Your task to perform on an android device: Check the price on the Dyson V11 Motorhead on Best Buy Image 0: 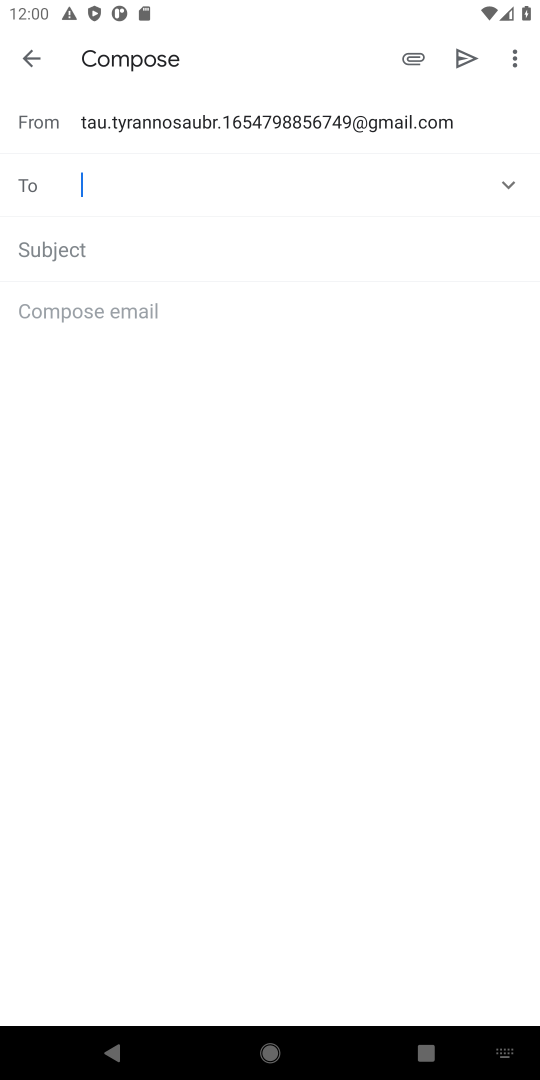
Step 0: press home button
Your task to perform on an android device: Check the price on the Dyson V11 Motorhead on Best Buy Image 1: 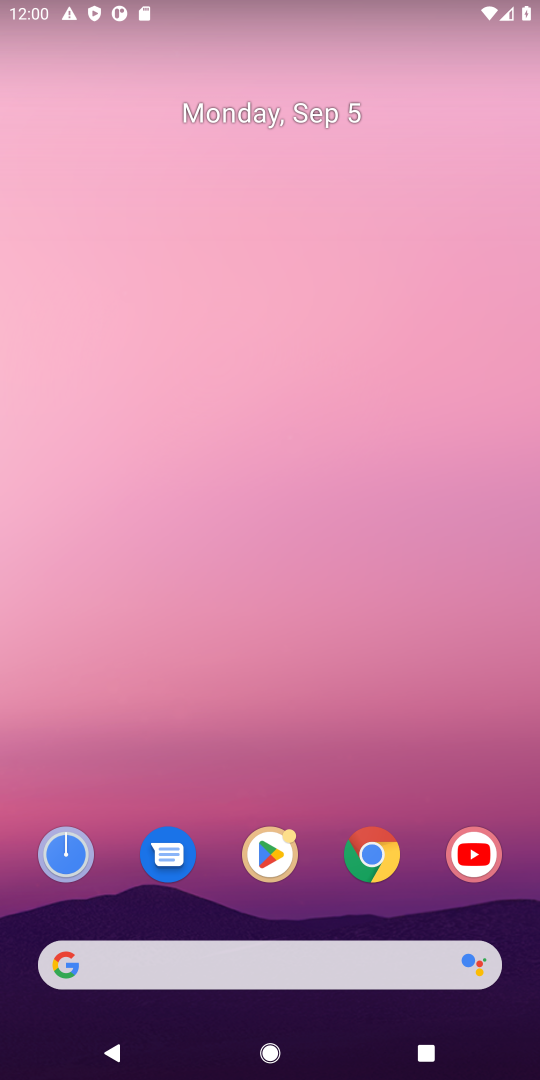
Step 1: click (234, 961)
Your task to perform on an android device: Check the price on the Dyson V11 Motorhead on Best Buy Image 2: 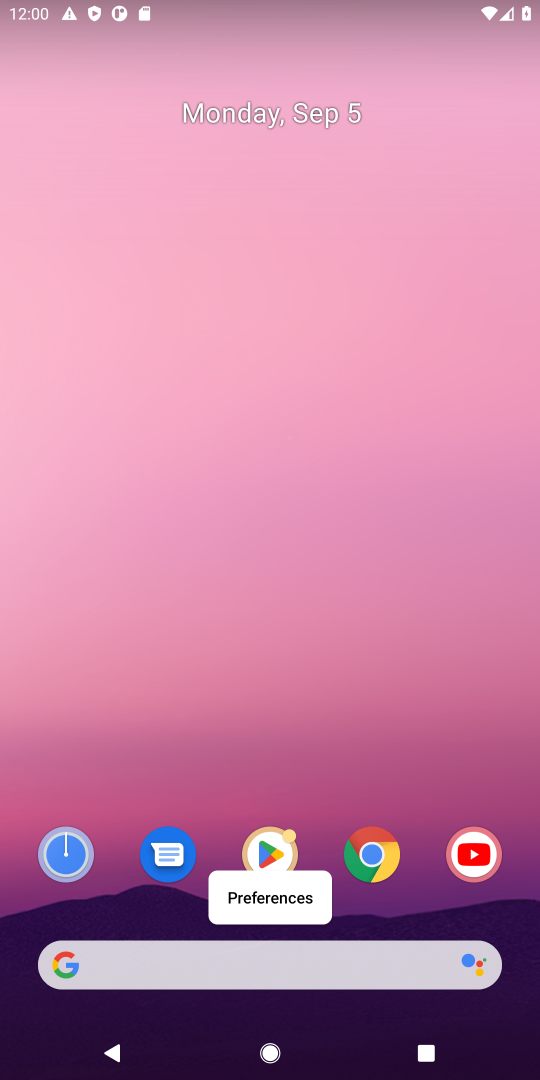
Step 2: click (151, 963)
Your task to perform on an android device: Check the price on the Dyson V11 Motorhead on Best Buy Image 3: 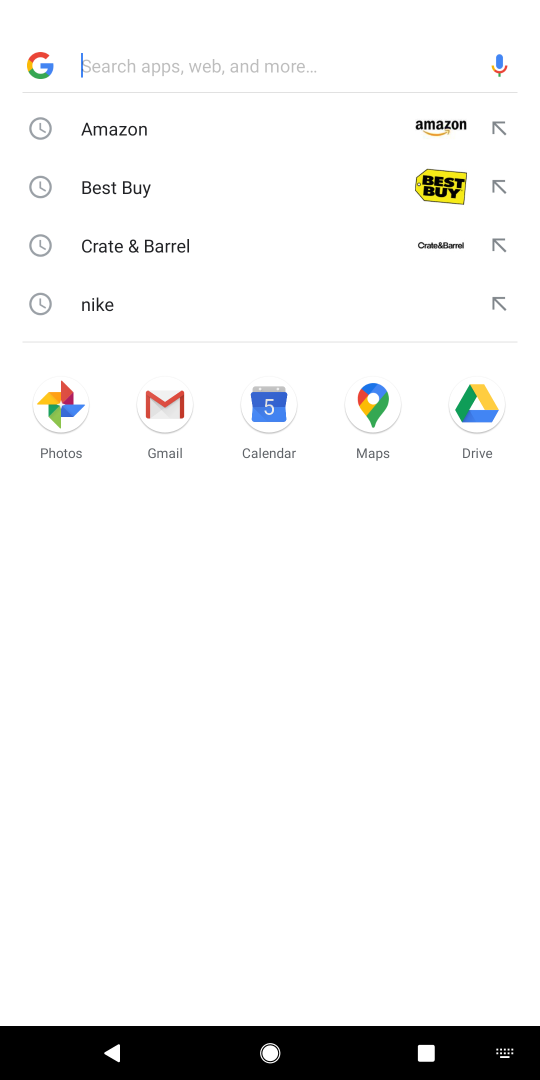
Step 3: press enter
Your task to perform on an android device: Check the price on the Dyson V11 Motorhead on Best Buy Image 4: 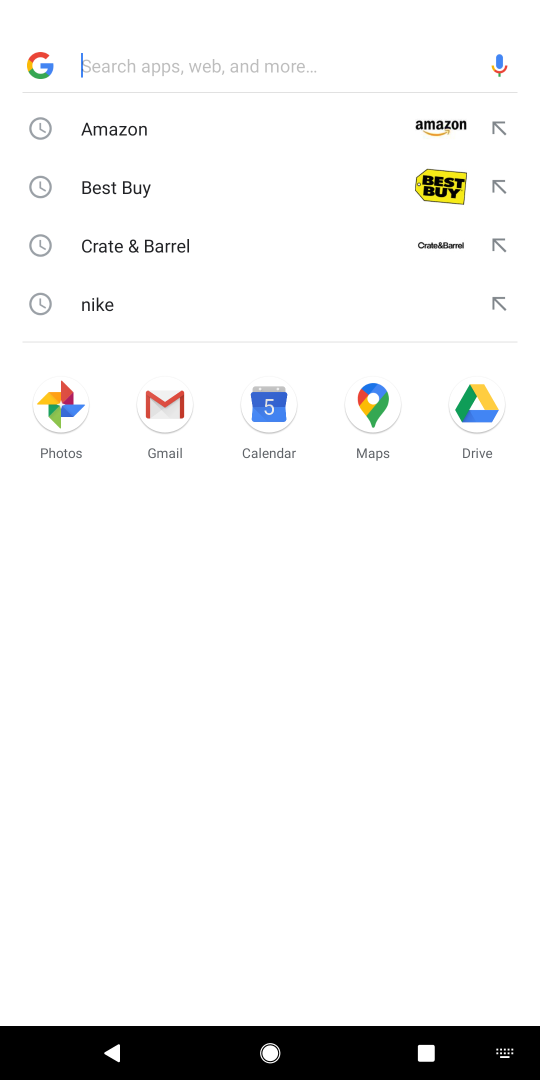
Step 4: type "best buy"
Your task to perform on an android device: Check the price on the Dyson V11 Motorhead on Best Buy Image 5: 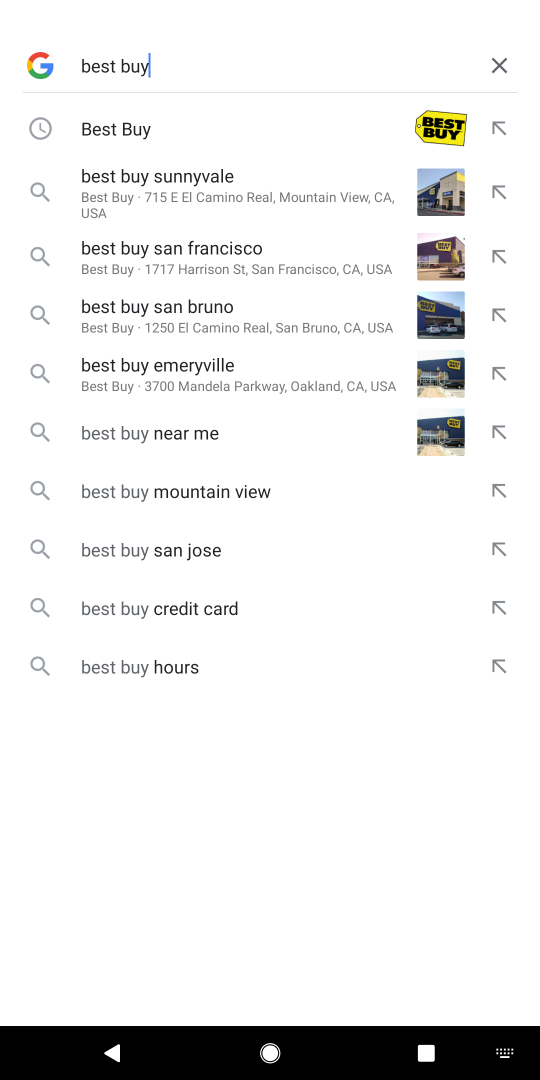
Step 5: click (135, 135)
Your task to perform on an android device: Check the price on the Dyson V11 Motorhead on Best Buy Image 6: 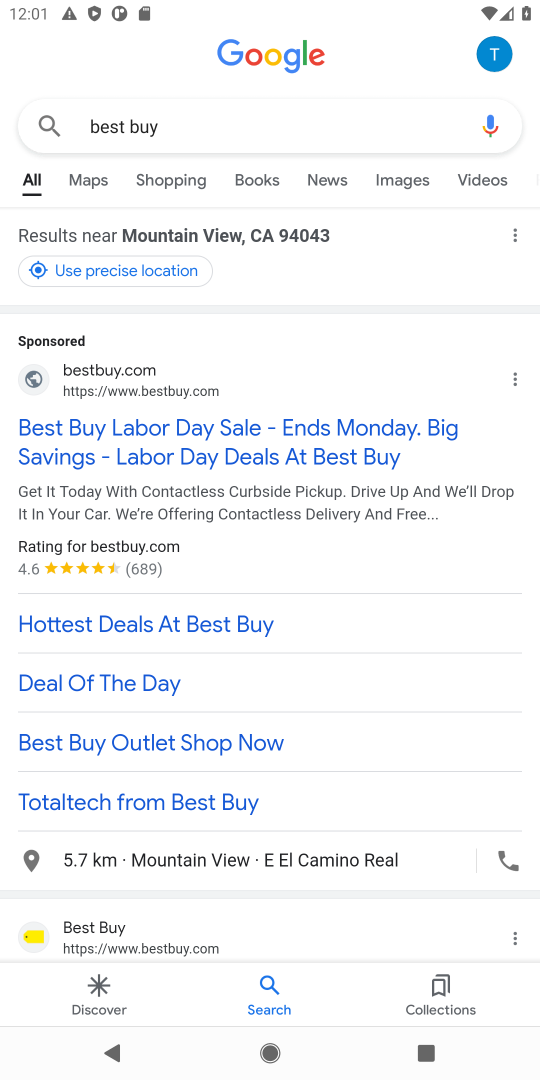
Step 6: click (181, 440)
Your task to perform on an android device: Check the price on the Dyson V11 Motorhead on Best Buy Image 7: 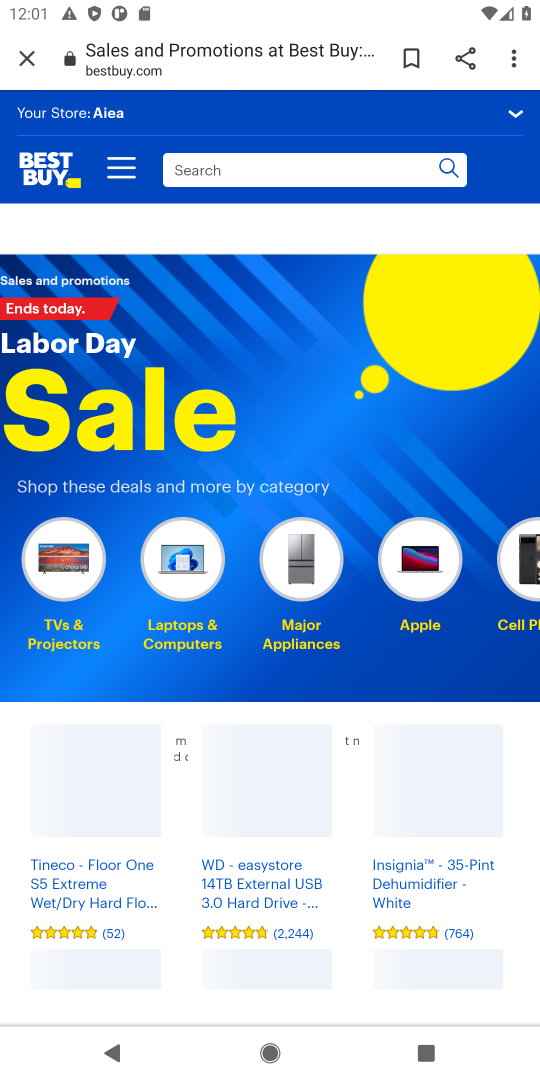
Step 7: click (247, 159)
Your task to perform on an android device: Check the price on the Dyson V11 Motorhead on Best Buy Image 8: 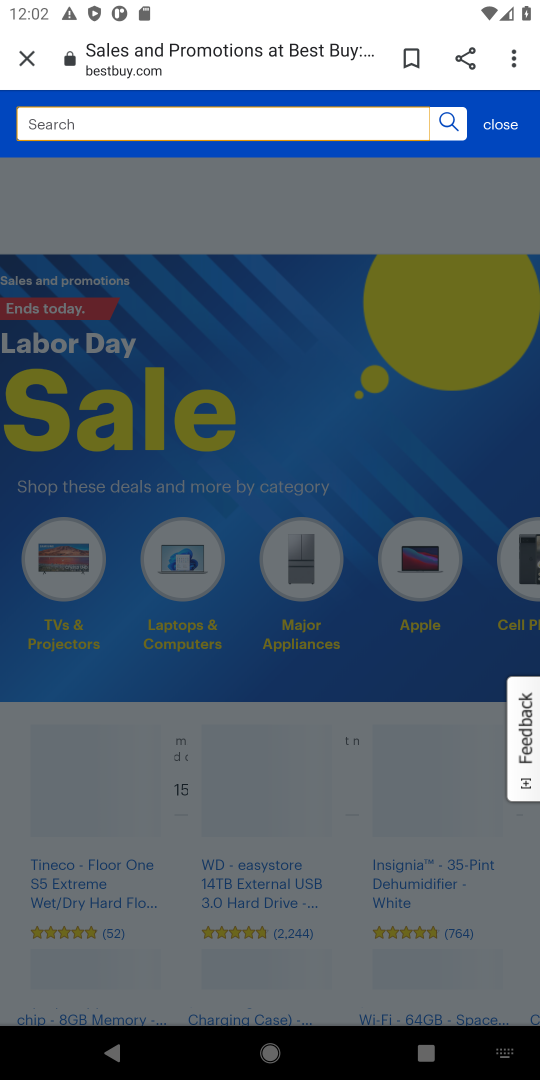
Step 8: press enter
Your task to perform on an android device: Check the price on the Dyson V11 Motorhead on Best Buy Image 9: 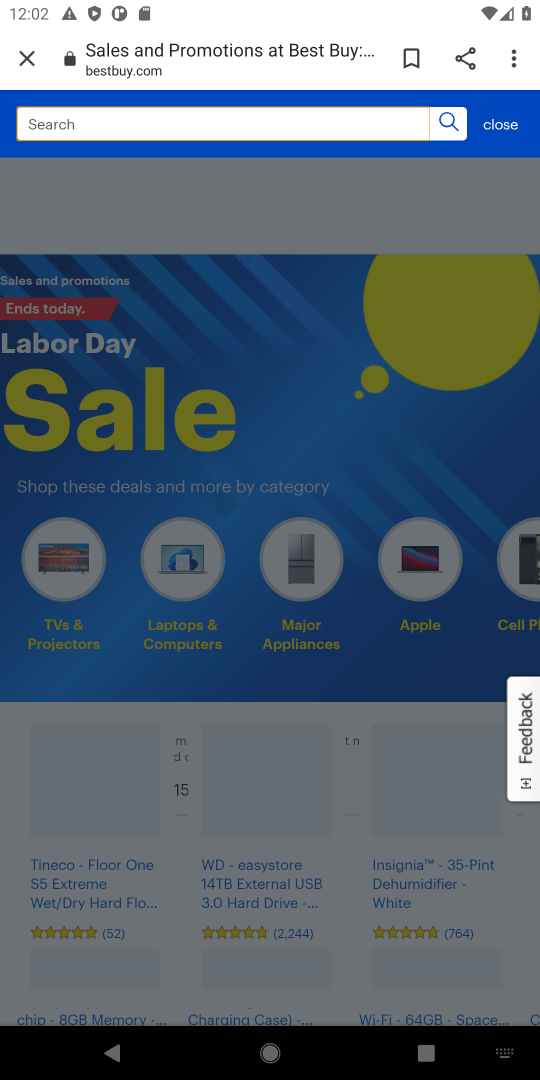
Step 9: type "Dyson V11 Motorhead"
Your task to perform on an android device: Check the price on the Dyson V11 Motorhead on Best Buy Image 10: 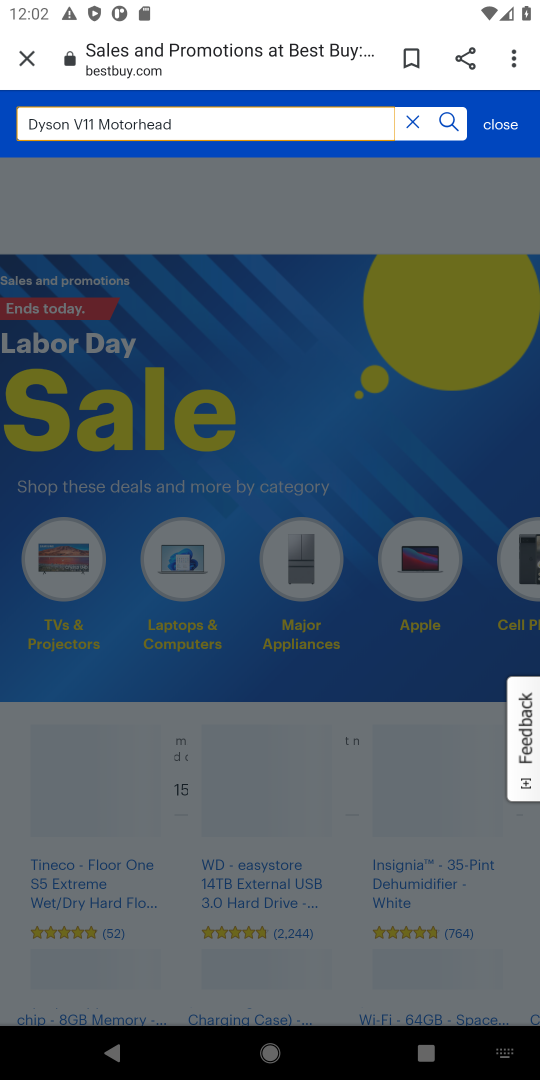
Step 10: click (447, 118)
Your task to perform on an android device: Check the price on the Dyson V11 Motorhead on Best Buy Image 11: 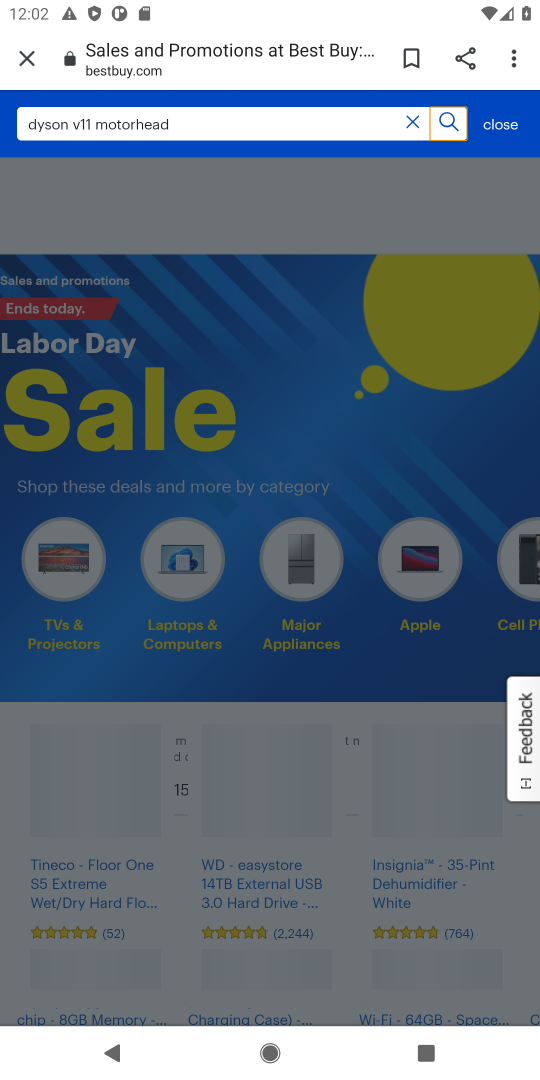
Step 11: click (449, 116)
Your task to perform on an android device: Check the price on the Dyson V11 Motorhead on Best Buy Image 12: 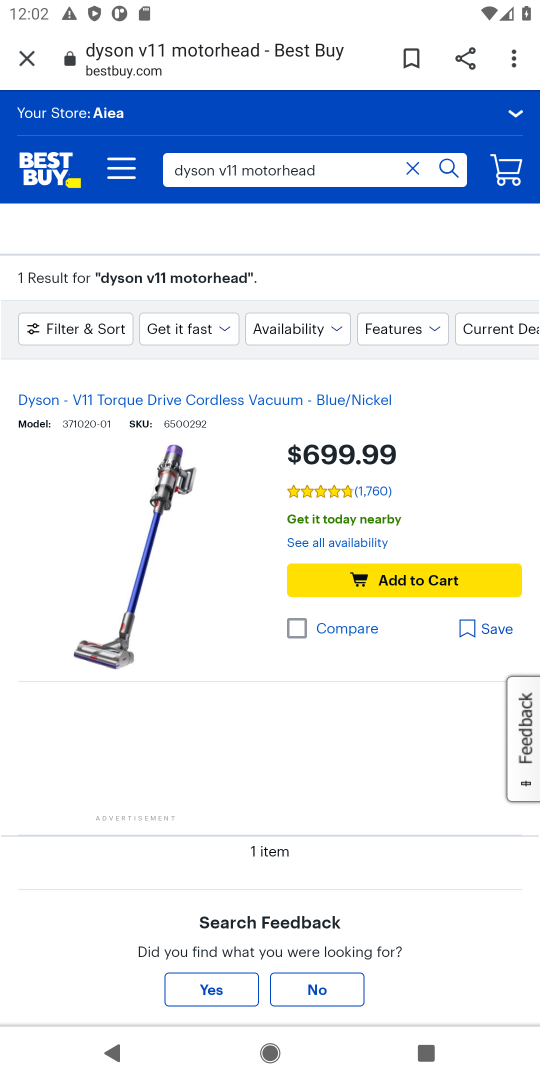
Step 12: task complete